Your task to perform on an android device: turn on airplane mode Image 0: 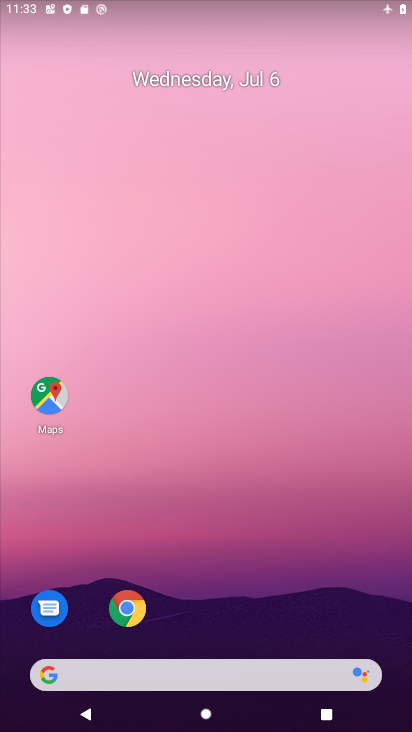
Step 0: drag from (196, 661) to (192, 209)
Your task to perform on an android device: turn on airplane mode Image 1: 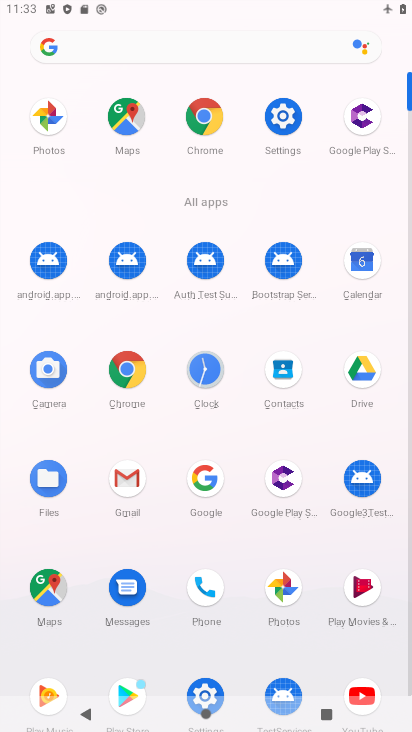
Step 1: click (267, 132)
Your task to perform on an android device: turn on airplane mode Image 2: 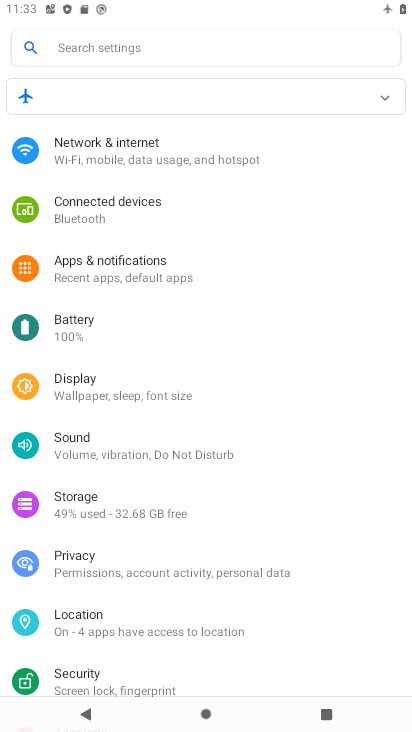
Step 2: click (72, 165)
Your task to perform on an android device: turn on airplane mode Image 3: 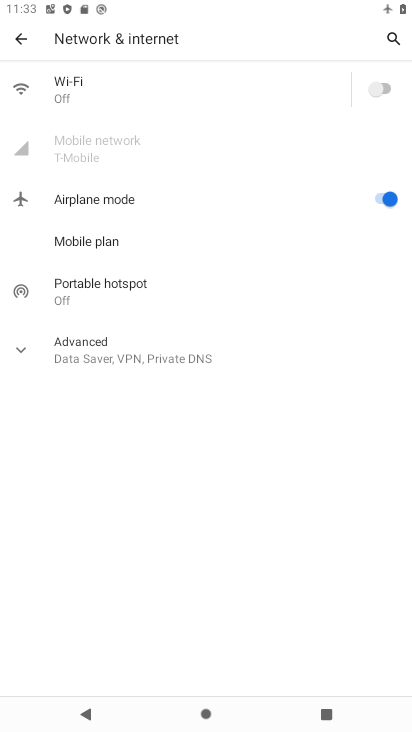
Step 3: task complete